Your task to perform on an android device: Open Google Image 0: 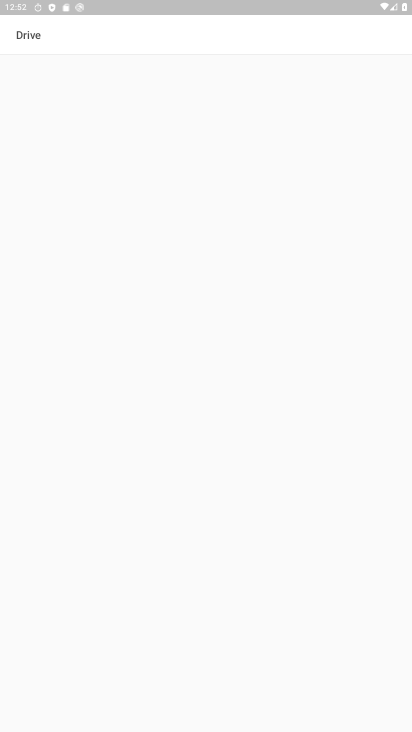
Step 0: press home button
Your task to perform on an android device: Open Google Image 1: 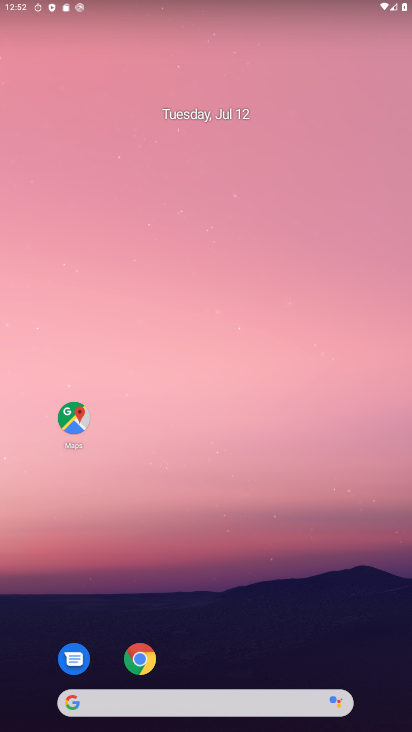
Step 1: drag from (279, 645) to (230, 109)
Your task to perform on an android device: Open Google Image 2: 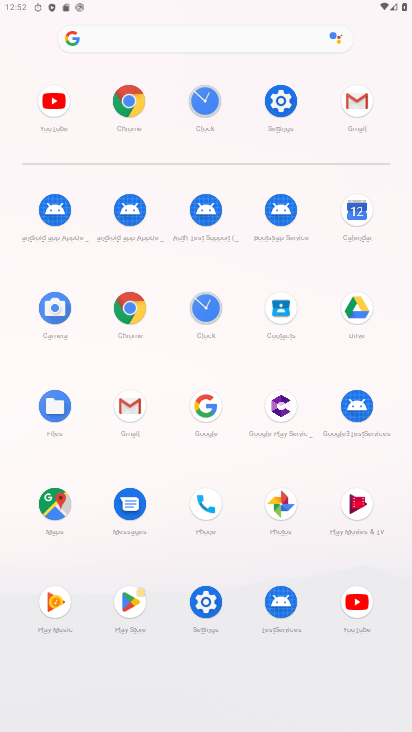
Step 2: click (203, 409)
Your task to perform on an android device: Open Google Image 3: 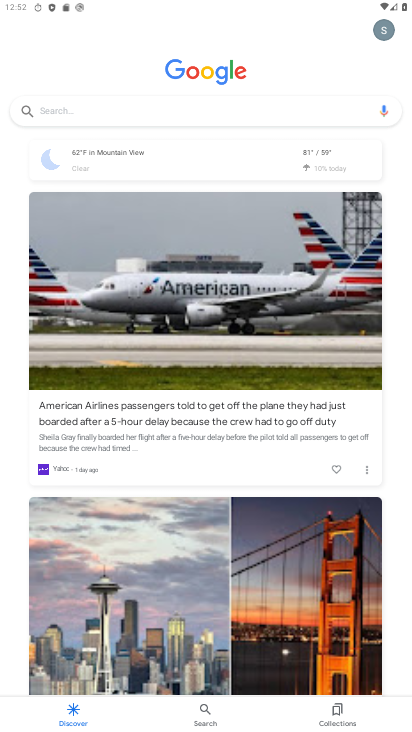
Step 3: task complete